Your task to perform on an android device: Clear all items from cart on bestbuy.com. Image 0: 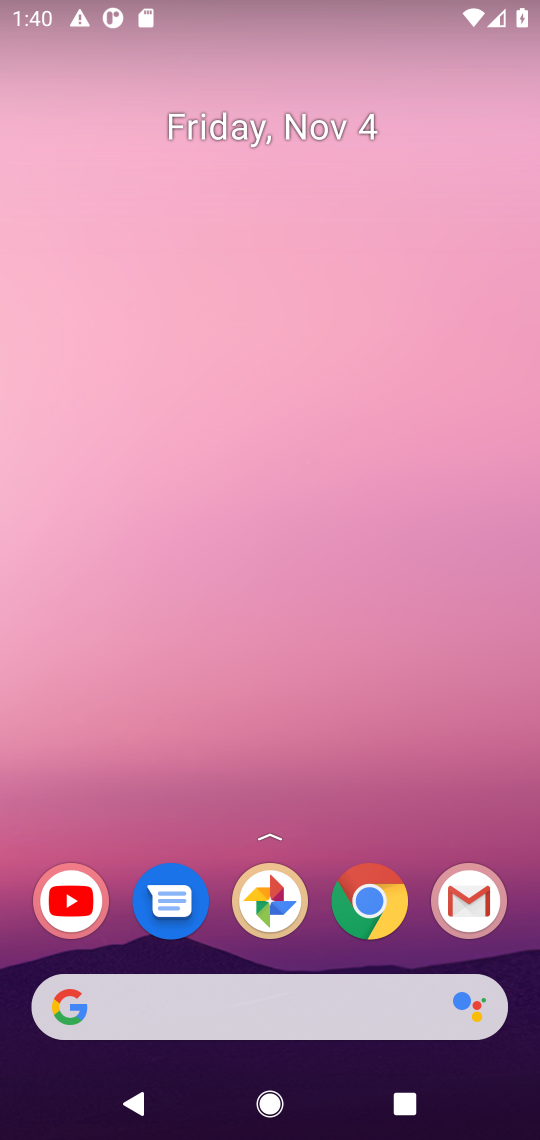
Step 0: click (374, 897)
Your task to perform on an android device: Clear all items from cart on bestbuy.com. Image 1: 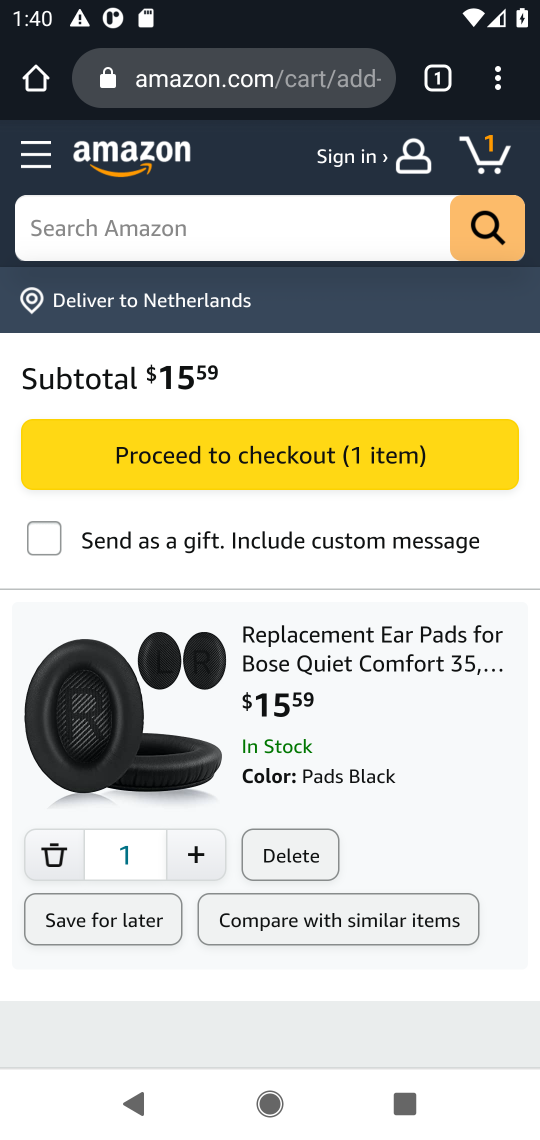
Step 1: click (359, 72)
Your task to perform on an android device: Clear all items from cart on bestbuy.com. Image 2: 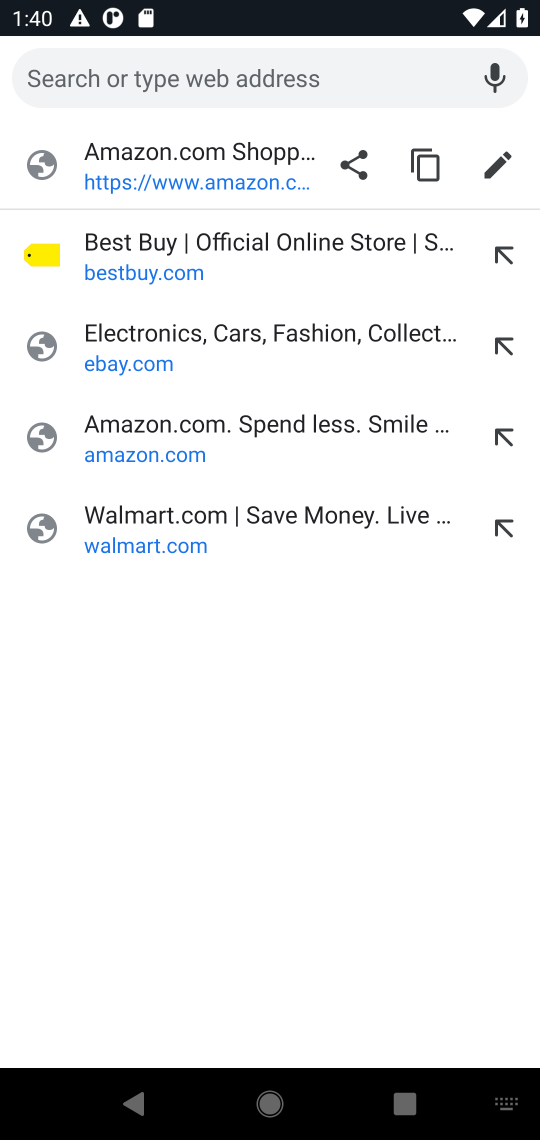
Step 2: click (162, 248)
Your task to perform on an android device: Clear all items from cart on bestbuy.com. Image 3: 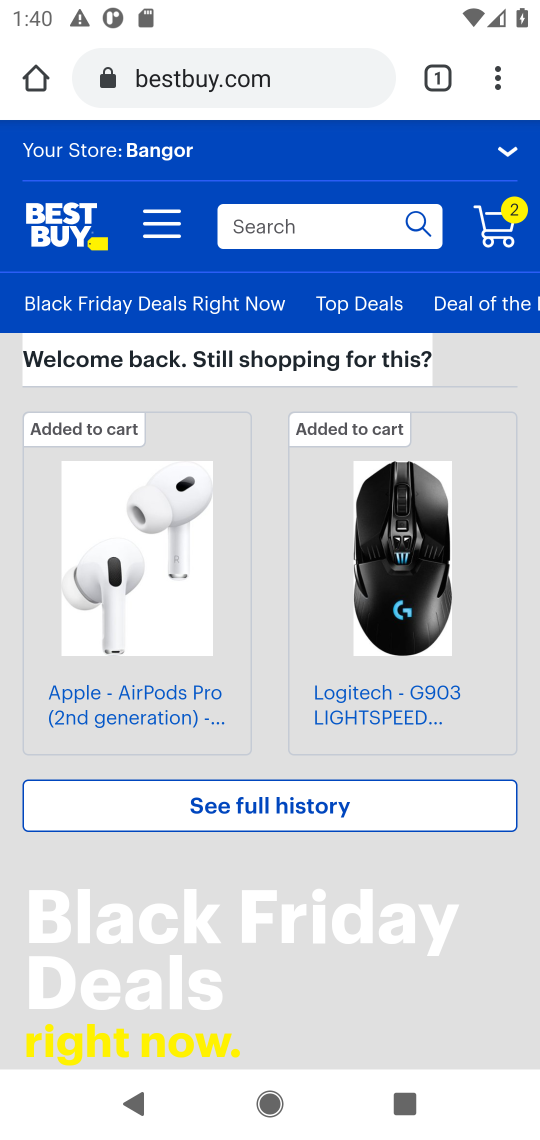
Step 3: click (488, 224)
Your task to perform on an android device: Clear all items from cart on bestbuy.com. Image 4: 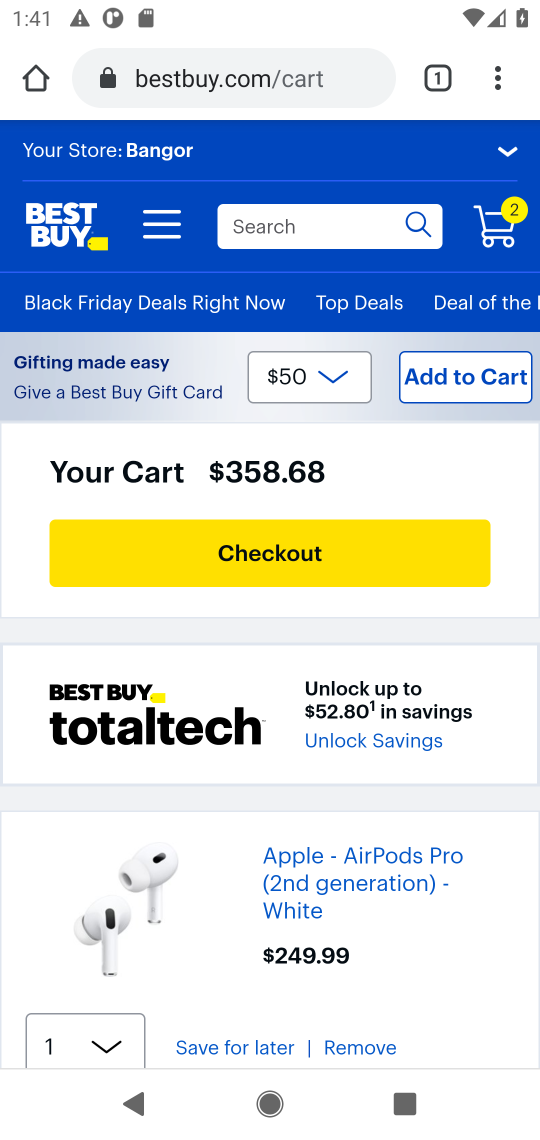
Step 4: drag from (455, 897) to (398, 438)
Your task to perform on an android device: Clear all items from cart on bestbuy.com. Image 5: 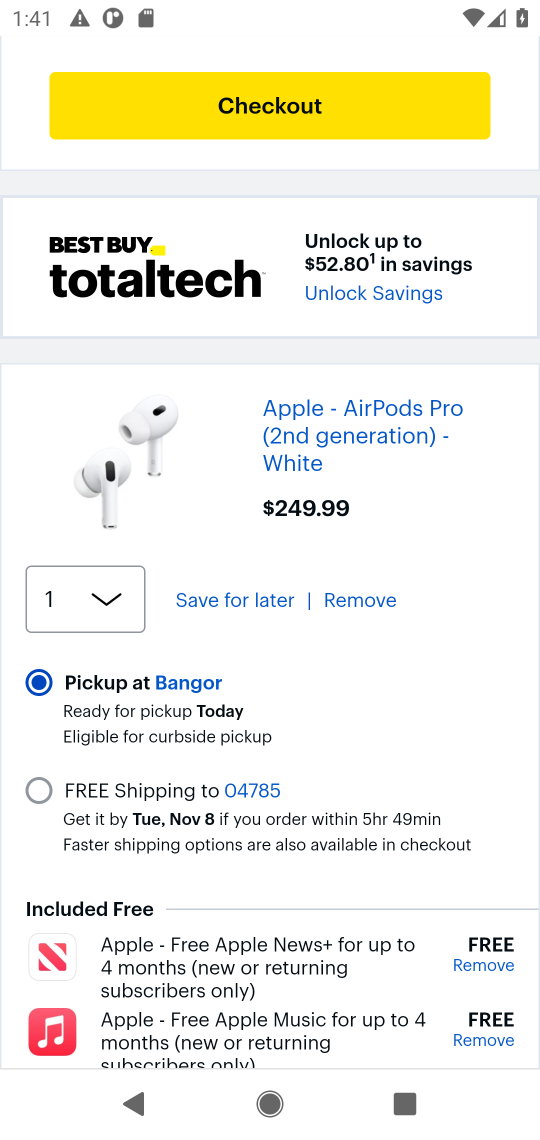
Step 5: click (362, 599)
Your task to perform on an android device: Clear all items from cart on bestbuy.com. Image 6: 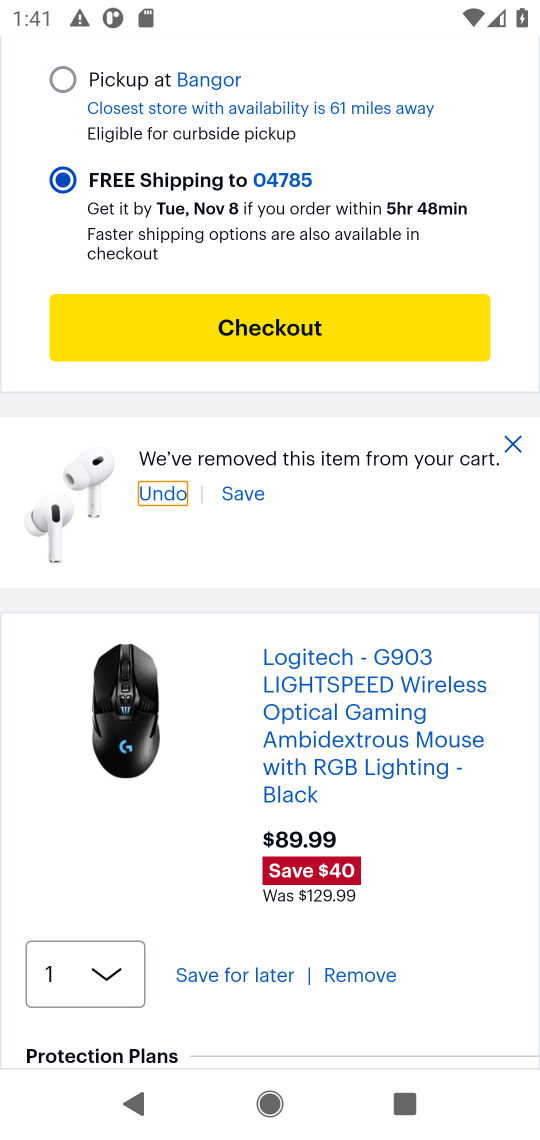
Step 6: click (372, 969)
Your task to perform on an android device: Clear all items from cart on bestbuy.com. Image 7: 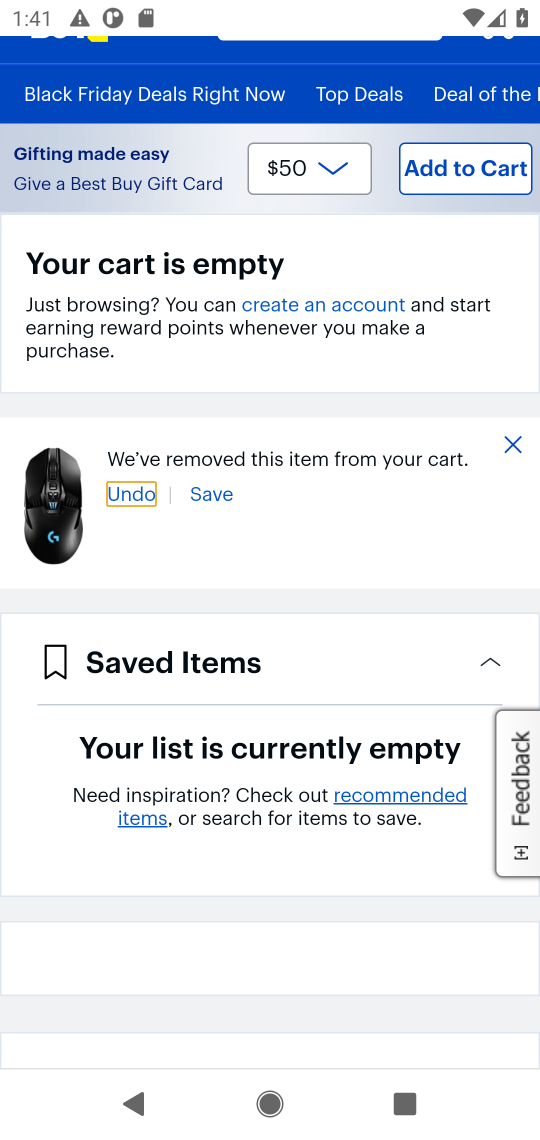
Step 7: click (512, 447)
Your task to perform on an android device: Clear all items from cart on bestbuy.com. Image 8: 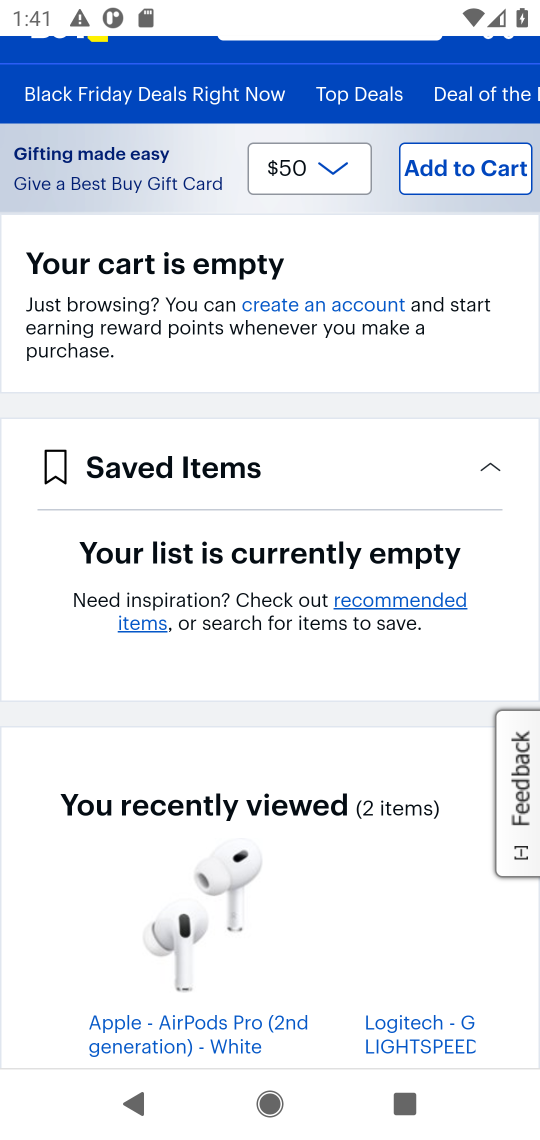
Step 8: task complete